Your task to perform on an android device: Open notification settings Image 0: 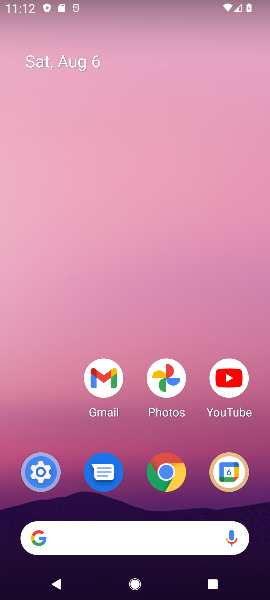
Step 0: drag from (193, 520) to (81, 44)
Your task to perform on an android device: Open notification settings Image 1: 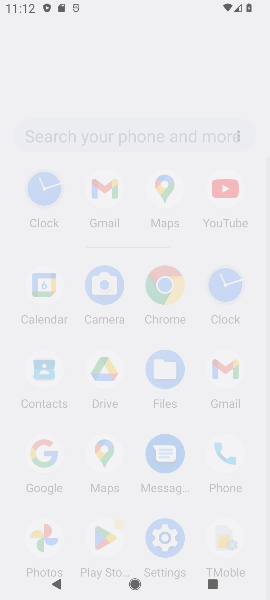
Step 1: drag from (133, 347) to (100, 132)
Your task to perform on an android device: Open notification settings Image 2: 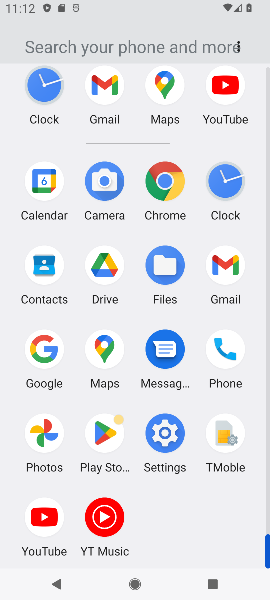
Step 2: click (173, 427)
Your task to perform on an android device: Open notification settings Image 3: 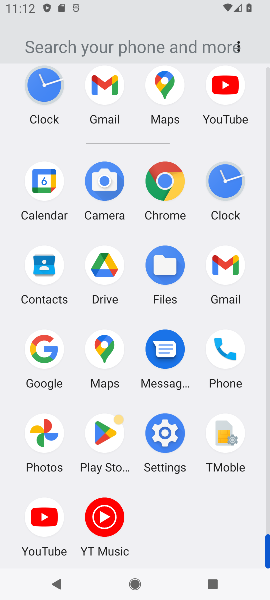
Step 3: click (173, 428)
Your task to perform on an android device: Open notification settings Image 4: 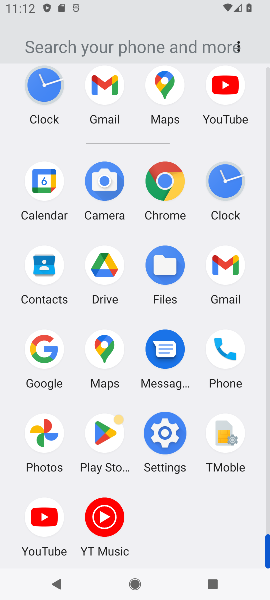
Step 4: click (173, 428)
Your task to perform on an android device: Open notification settings Image 5: 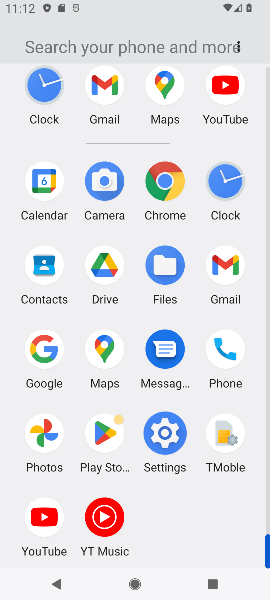
Step 5: click (173, 428)
Your task to perform on an android device: Open notification settings Image 6: 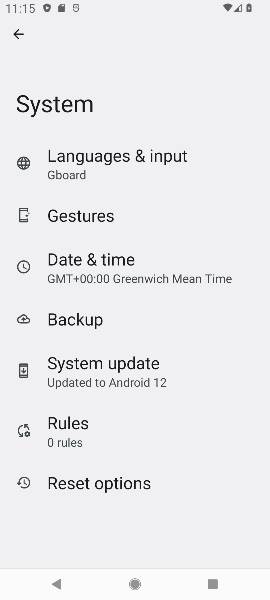
Step 6: press back button
Your task to perform on an android device: Open notification settings Image 7: 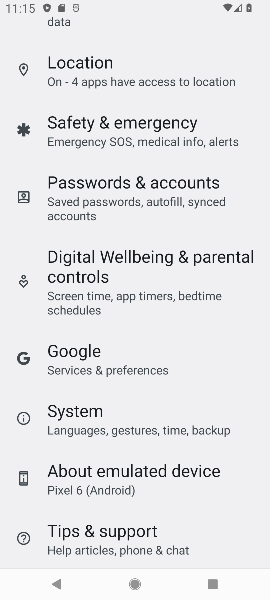
Step 7: drag from (59, 138) to (175, 456)
Your task to perform on an android device: Open notification settings Image 8: 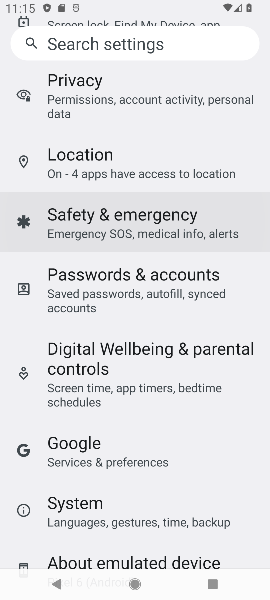
Step 8: drag from (166, 222) to (169, 466)
Your task to perform on an android device: Open notification settings Image 9: 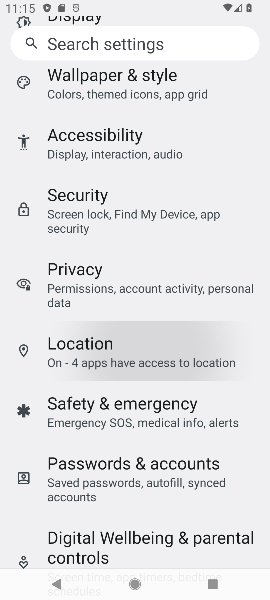
Step 9: drag from (140, 246) to (137, 423)
Your task to perform on an android device: Open notification settings Image 10: 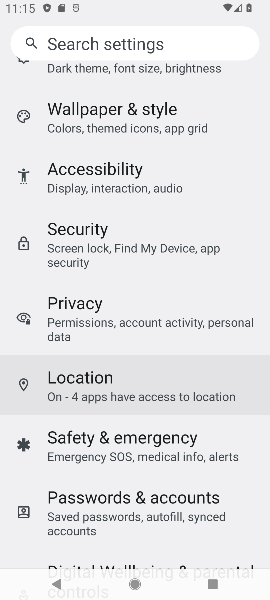
Step 10: drag from (92, 126) to (95, 408)
Your task to perform on an android device: Open notification settings Image 11: 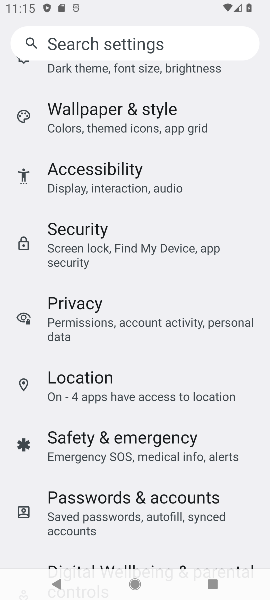
Step 11: drag from (66, 130) to (115, 419)
Your task to perform on an android device: Open notification settings Image 12: 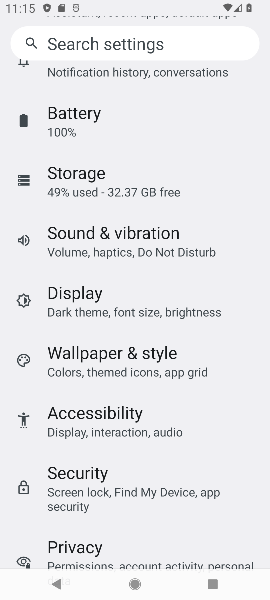
Step 12: drag from (112, 181) to (103, 450)
Your task to perform on an android device: Open notification settings Image 13: 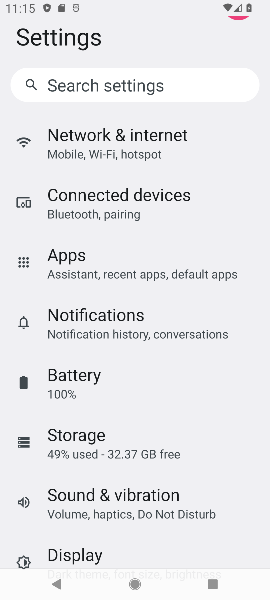
Step 13: drag from (110, 265) to (124, 492)
Your task to perform on an android device: Open notification settings Image 14: 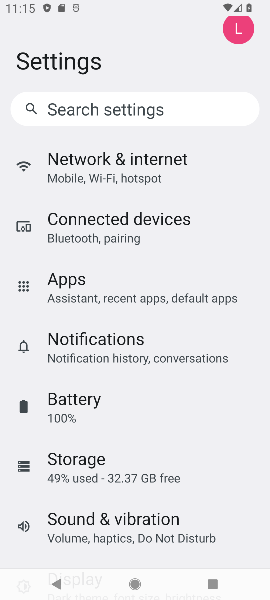
Step 14: drag from (111, 135) to (128, 428)
Your task to perform on an android device: Open notification settings Image 15: 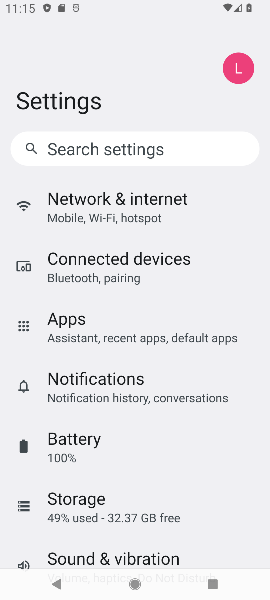
Step 15: drag from (104, 140) to (122, 388)
Your task to perform on an android device: Open notification settings Image 16: 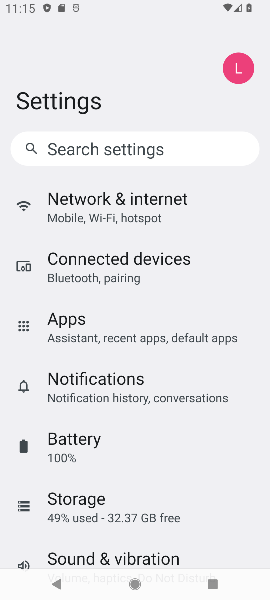
Step 16: click (84, 386)
Your task to perform on an android device: Open notification settings Image 17: 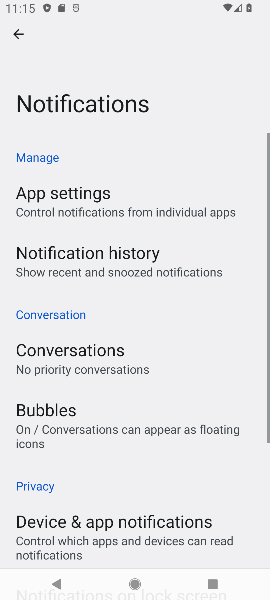
Step 17: task complete